Your task to perform on an android device: turn on notifications settings in the gmail app Image 0: 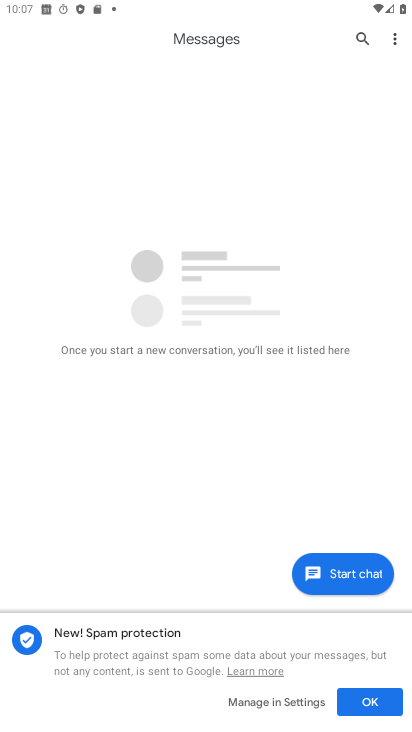
Step 0: drag from (196, 572) to (242, 364)
Your task to perform on an android device: turn on notifications settings in the gmail app Image 1: 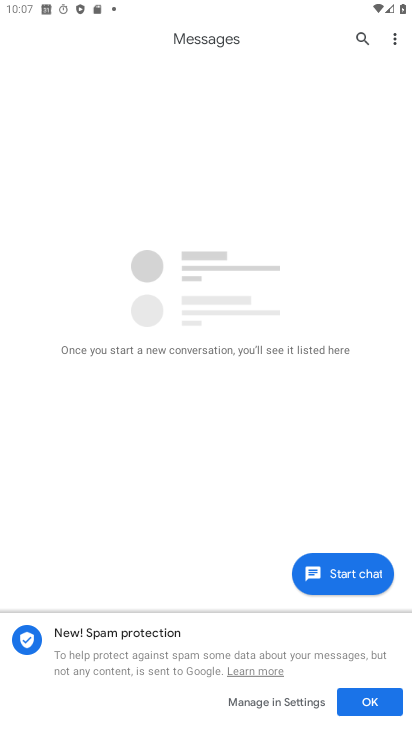
Step 1: press home button
Your task to perform on an android device: turn on notifications settings in the gmail app Image 2: 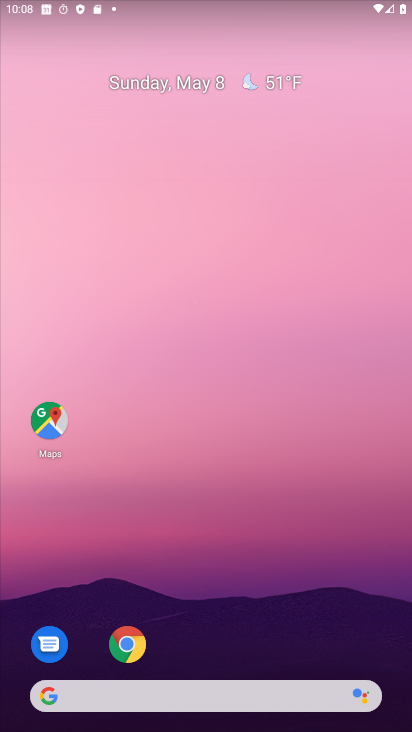
Step 2: drag from (258, 658) to (301, 236)
Your task to perform on an android device: turn on notifications settings in the gmail app Image 3: 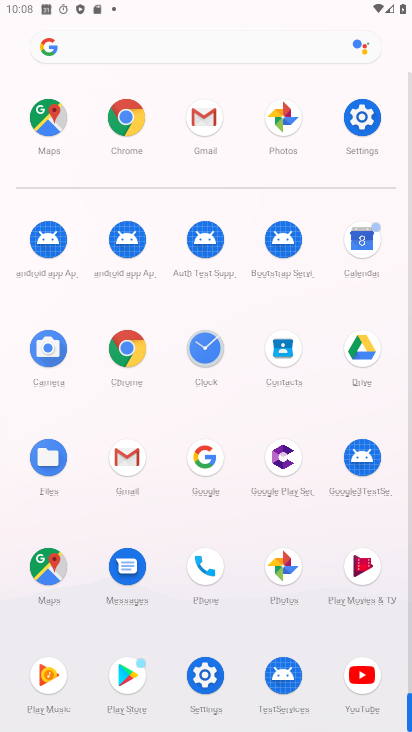
Step 3: click (107, 466)
Your task to perform on an android device: turn on notifications settings in the gmail app Image 4: 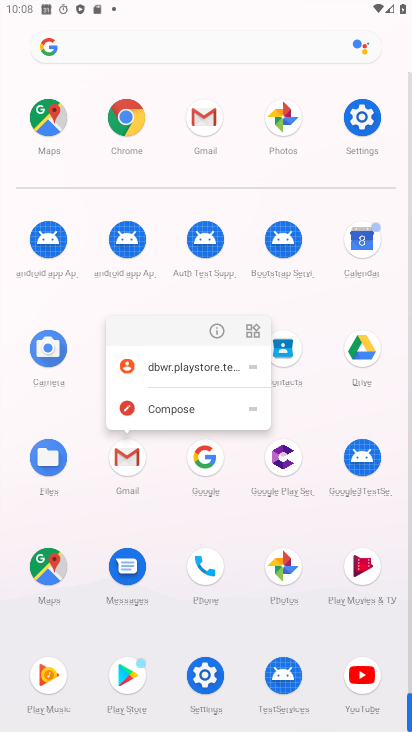
Step 4: click (214, 332)
Your task to perform on an android device: turn on notifications settings in the gmail app Image 5: 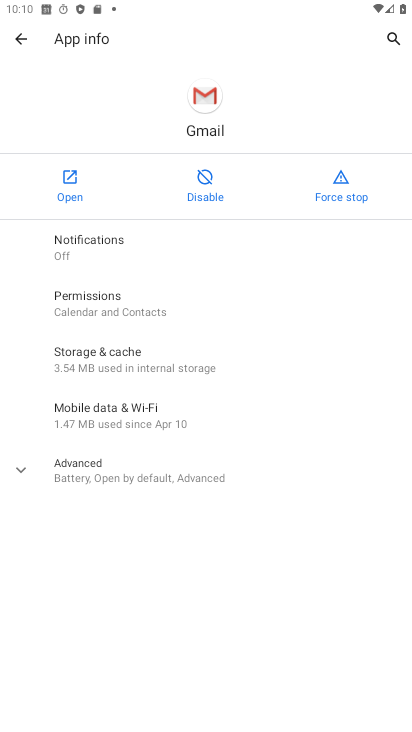
Step 5: click (69, 199)
Your task to perform on an android device: turn on notifications settings in the gmail app Image 6: 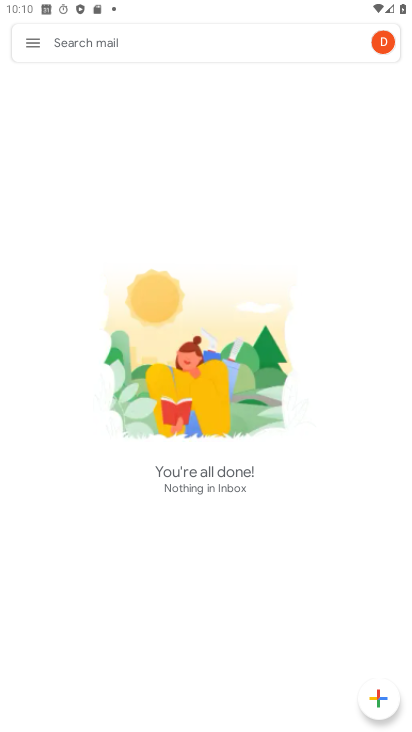
Step 6: click (22, 48)
Your task to perform on an android device: turn on notifications settings in the gmail app Image 7: 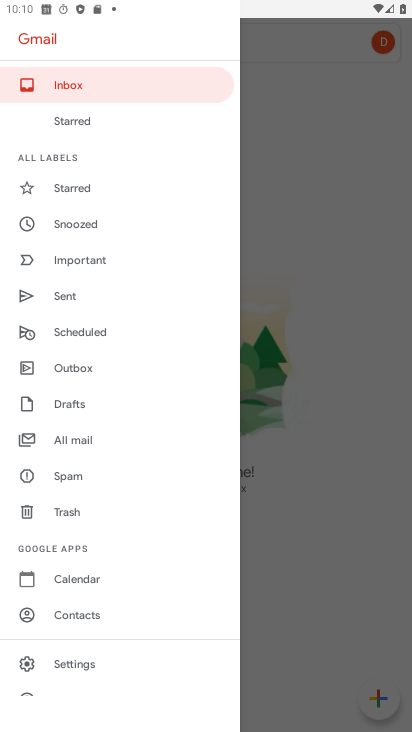
Step 7: click (76, 656)
Your task to perform on an android device: turn on notifications settings in the gmail app Image 8: 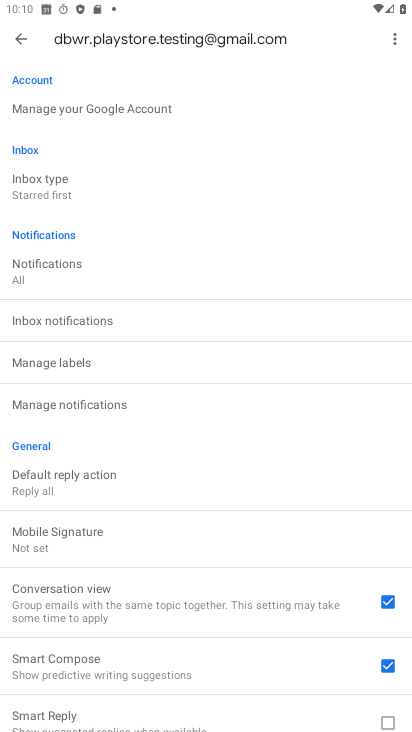
Step 8: click (76, 395)
Your task to perform on an android device: turn on notifications settings in the gmail app Image 9: 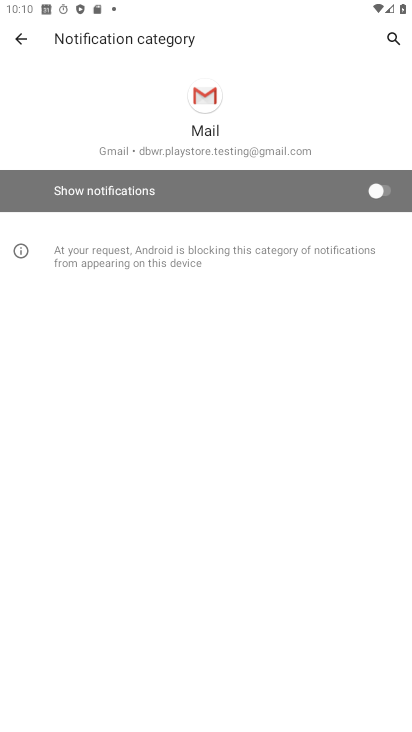
Step 9: click (345, 172)
Your task to perform on an android device: turn on notifications settings in the gmail app Image 10: 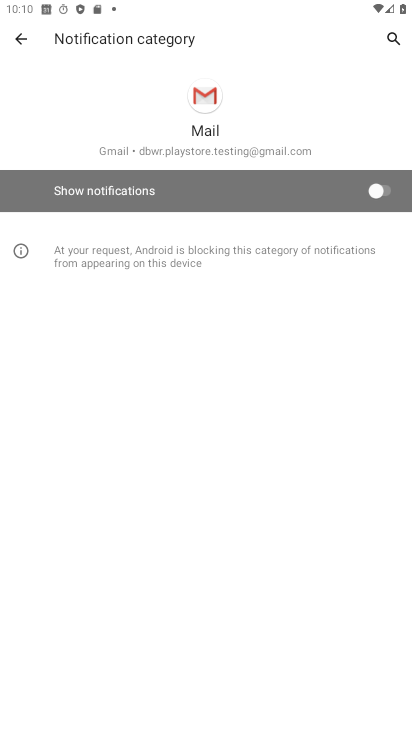
Step 10: task complete